Your task to perform on an android device: What's the weather? Image 0: 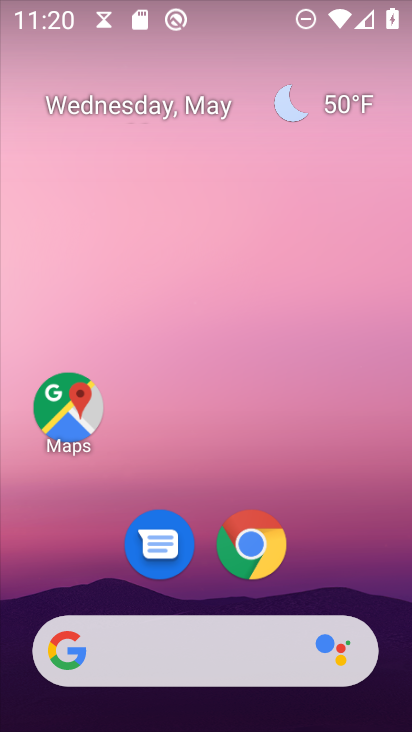
Step 0: click (350, 110)
Your task to perform on an android device: What's the weather? Image 1: 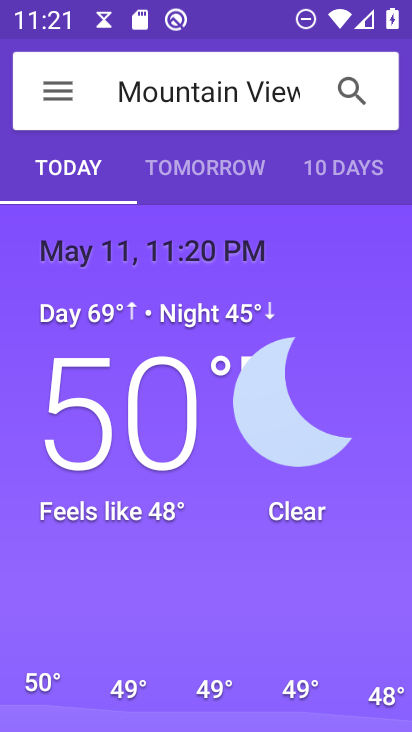
Step 1: task complete